Your task to perform on an android device: Go to Amazon Image 0: 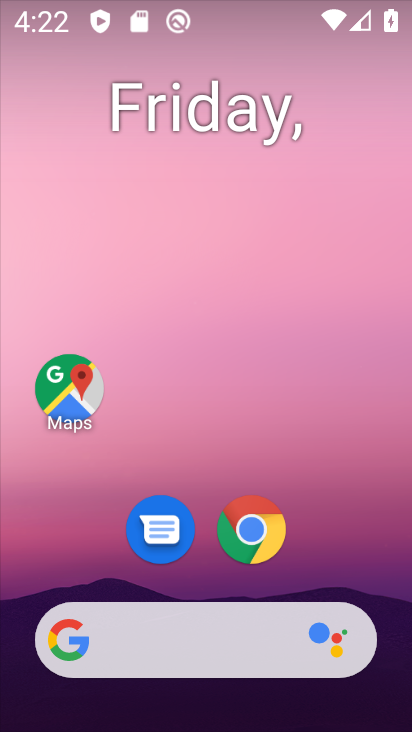
Step 0: click (241, 543)
Your task to perform on an android device: Go to Amazon Image 1: 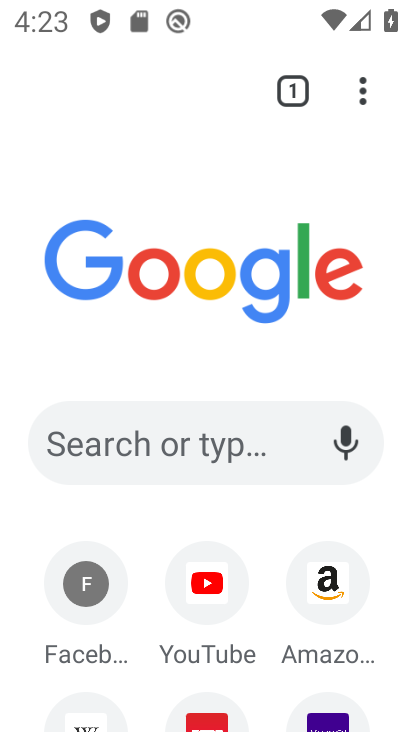
Step 1: click (324, 584)
Your task to perform on an android device: Go to Amazon Image 2: 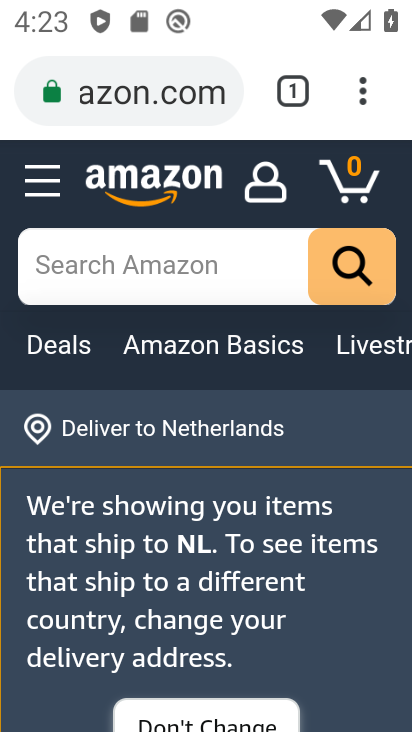
Step 2: task complete